Your task to perform on an android device: Check the news Image 0: 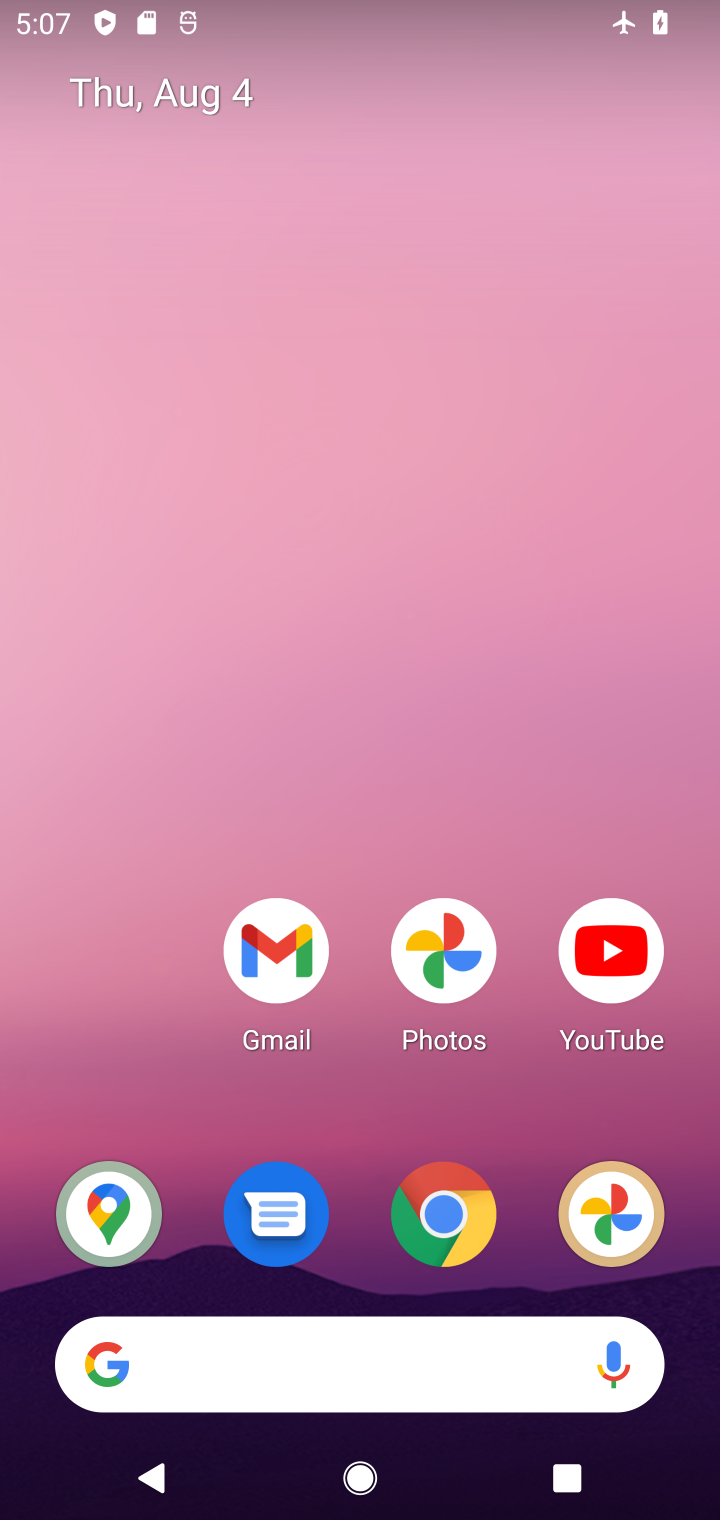
Step 0: click (444, 1200)
Your task to perform on an android device: Check the news Image 1: 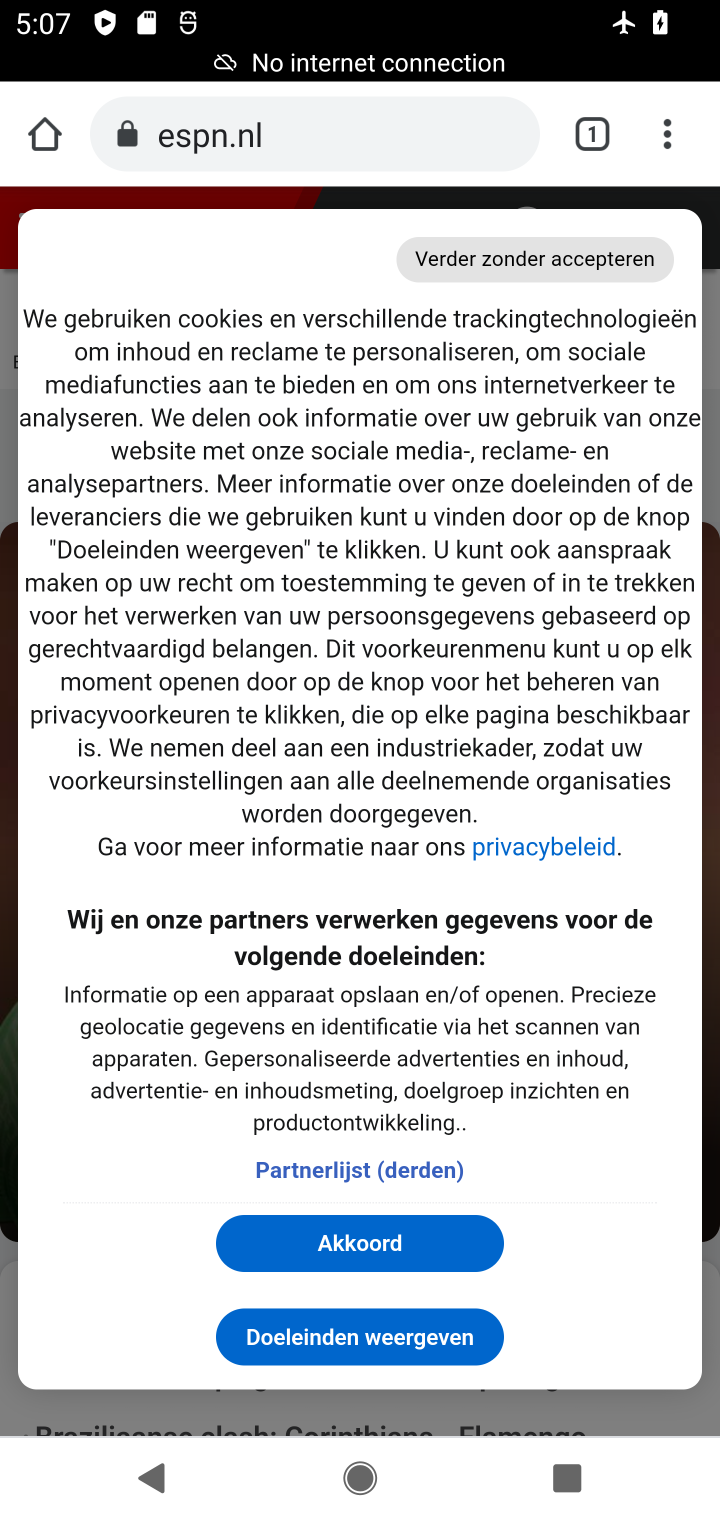
Step 1: click (407, 119)
Your task to perform on an android device: Check the news Image 2: 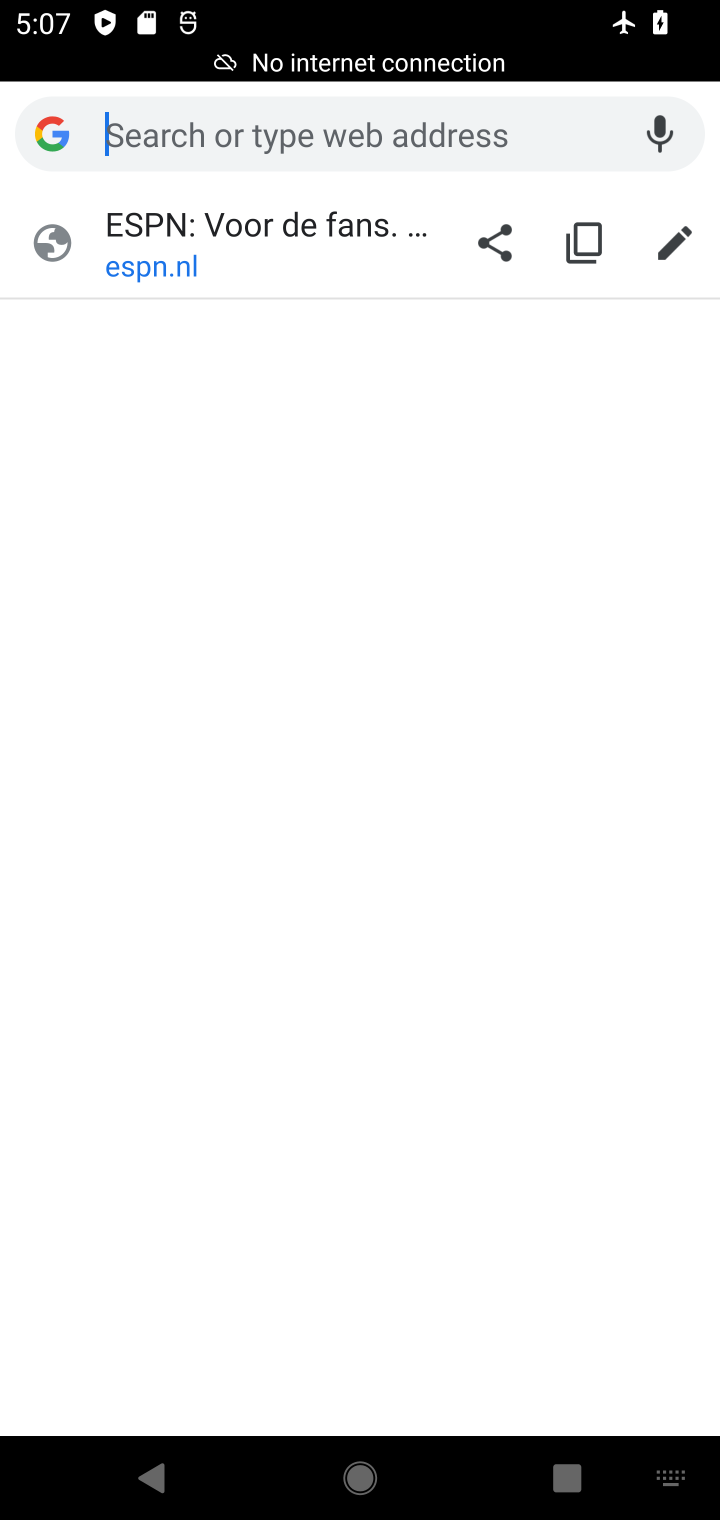
Step 2: type "Check the news"
Your task to perform on an android device: Check the news Image 3: 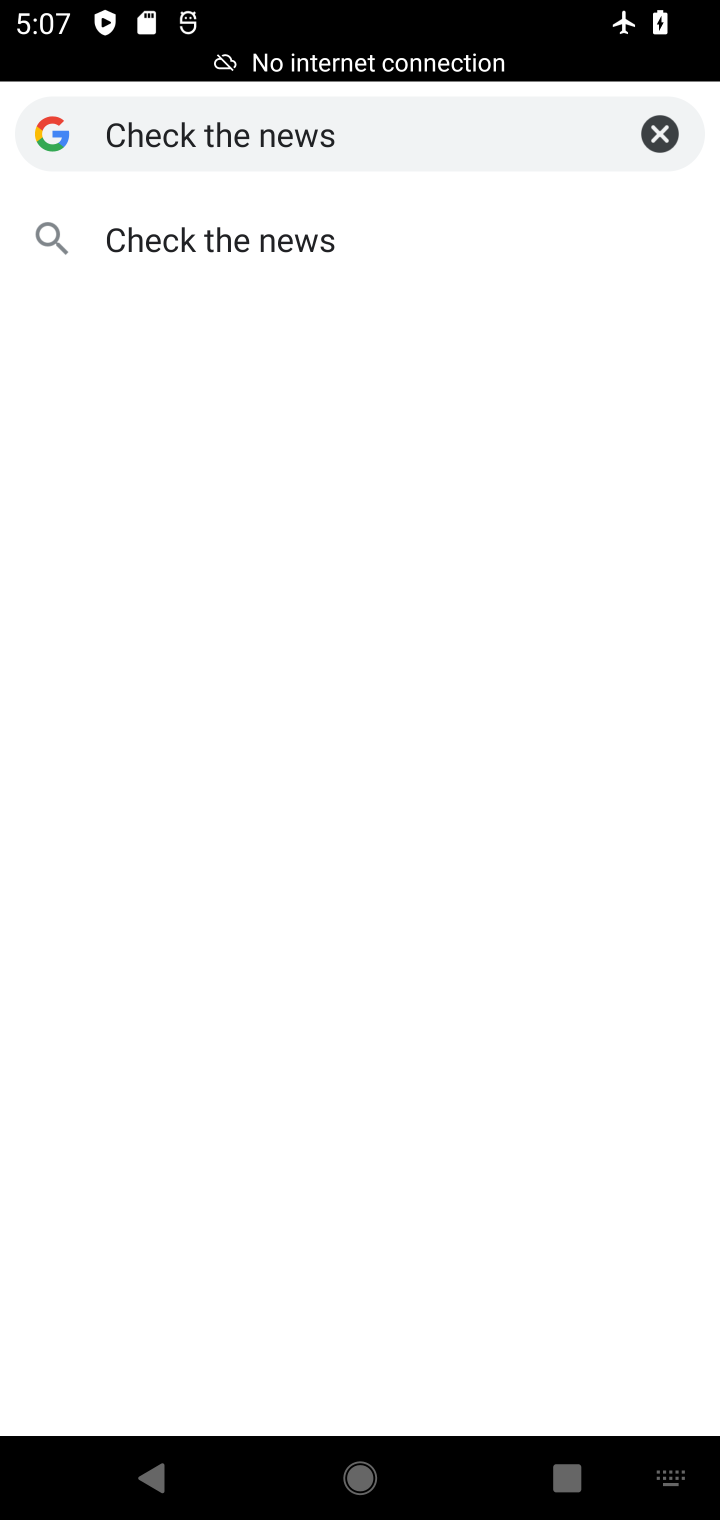
Step 3: click (313, 228)
Your task to perform on an android device: Check the news Image 4: 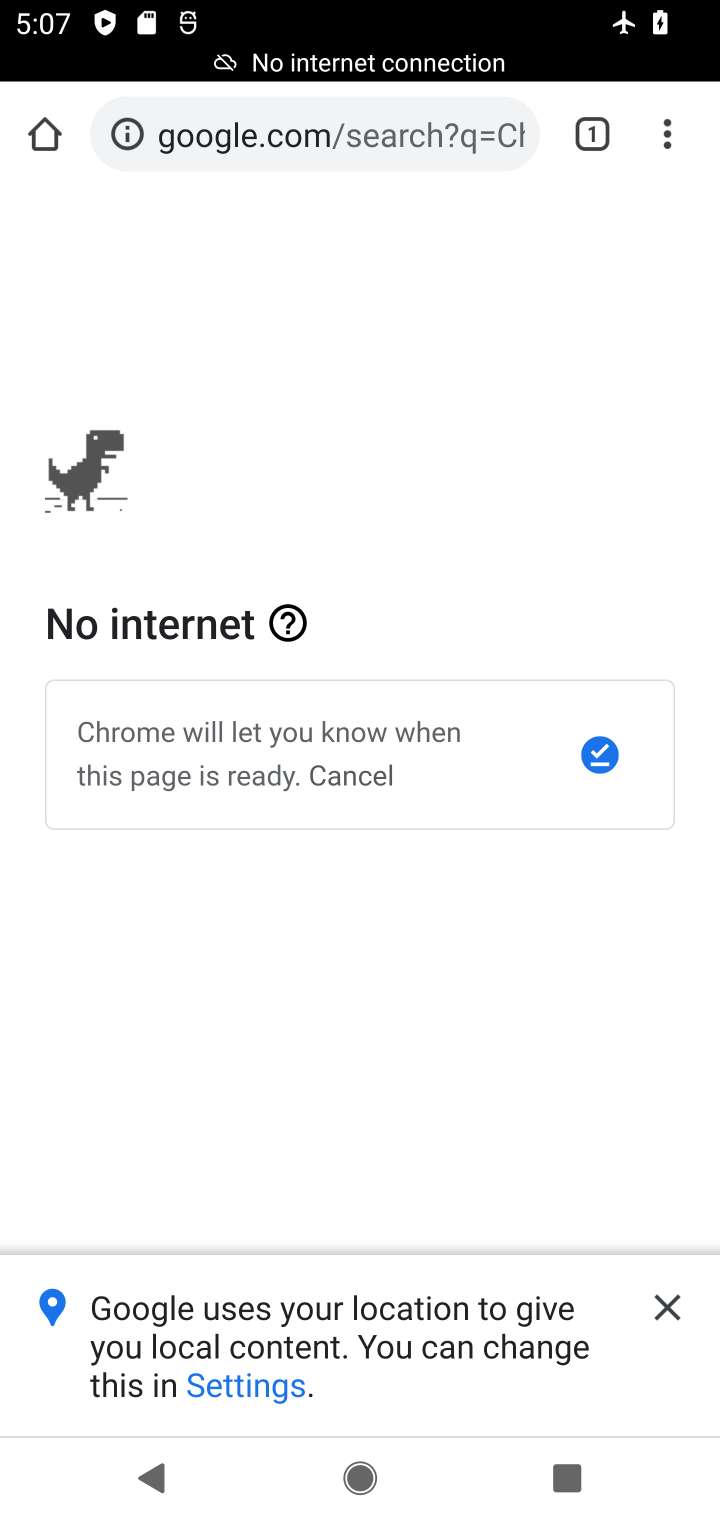
Step 4: task complete